Your task to perform on an android device: open app "Firefox Browser" (install if not already installed) and enter user name: "hashed@outlook.com" and password: "congestive" Image 0: 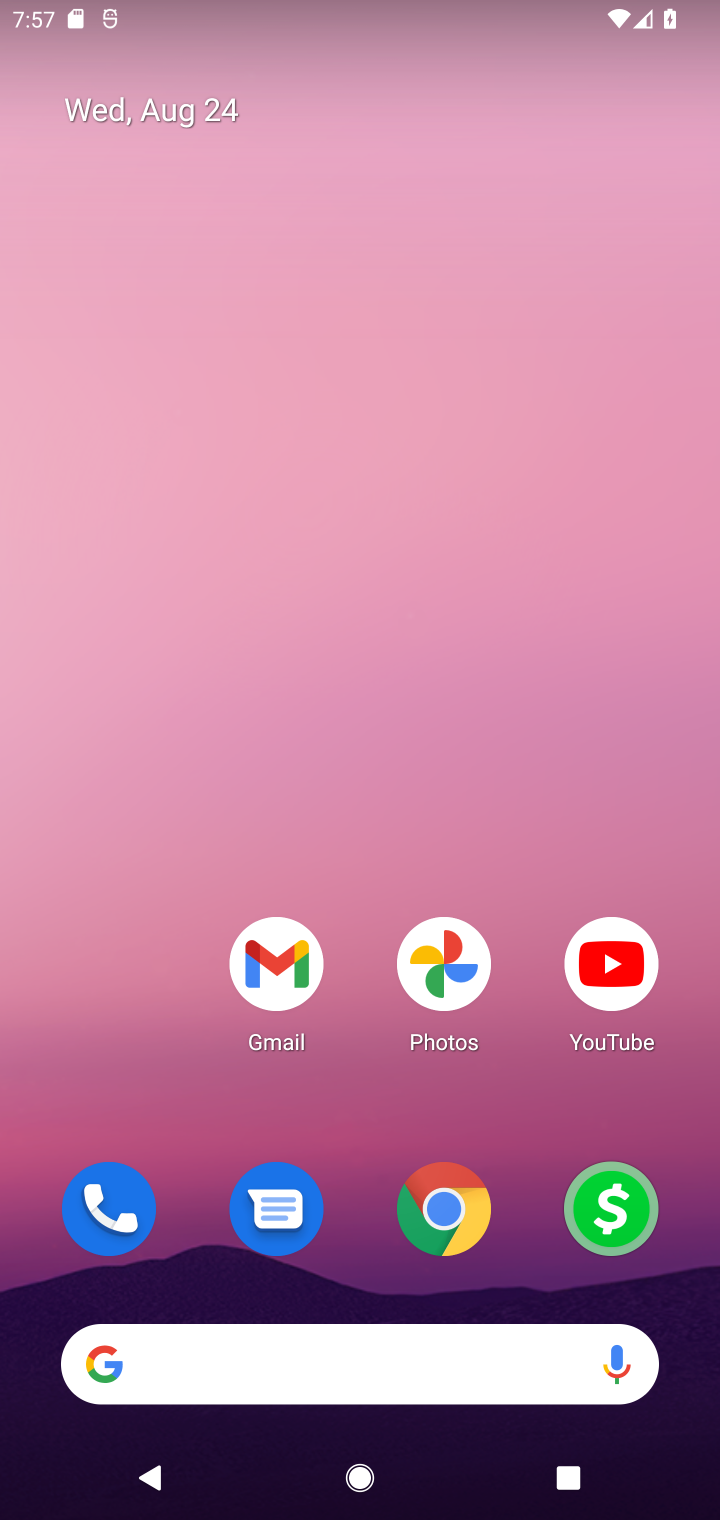
Step 0: drag from (220, 1332) to (577, 220)
Your task to perform on an android device: open app "Firefox Browser" (install if not already installed) and enter user name: "hashed@outlook.com" and password: "congestive" Image 1: 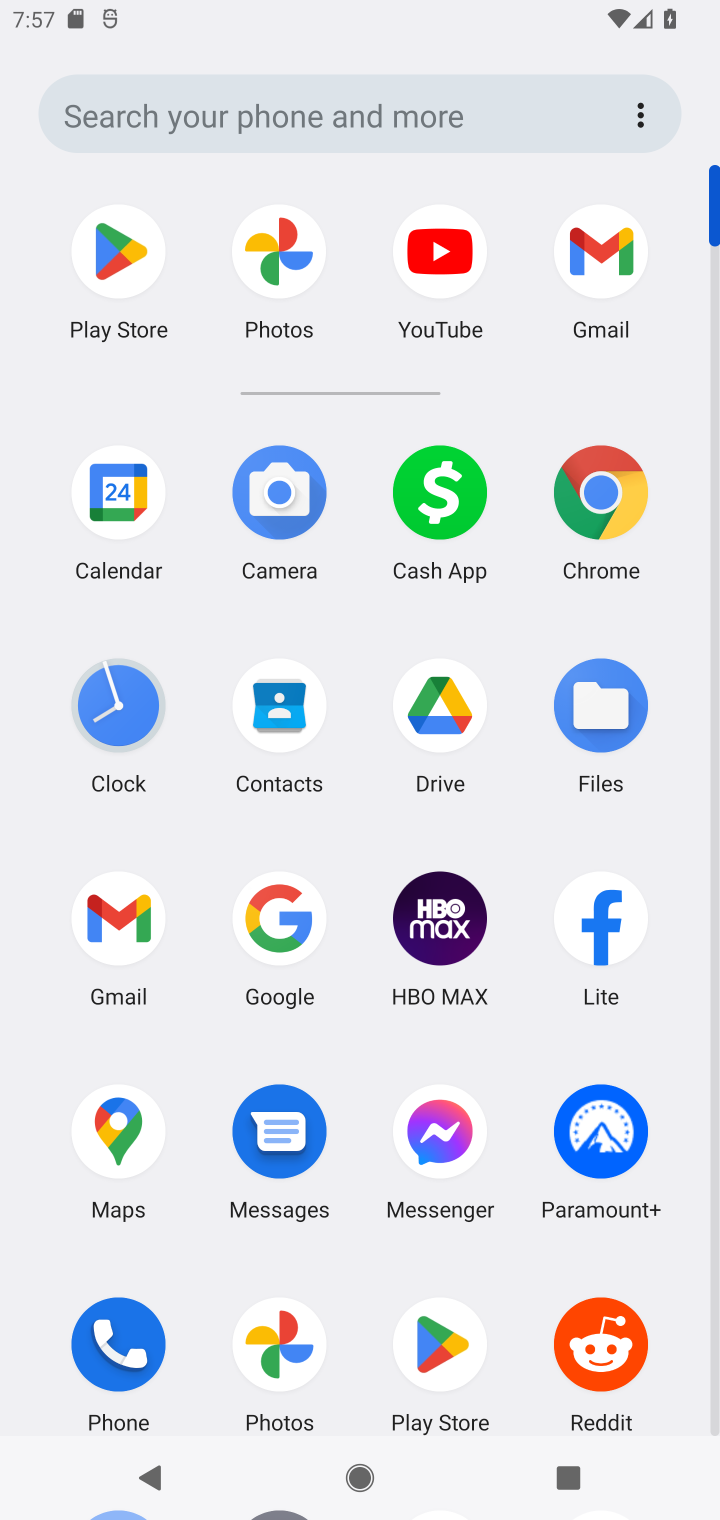
Step 1: click (103, 261)
Your task to perform on an android device: open app "Firefox Browser" (install if not already installed) and enter user name: "hashed@outlook.com" and password: "congestive" Image 2: 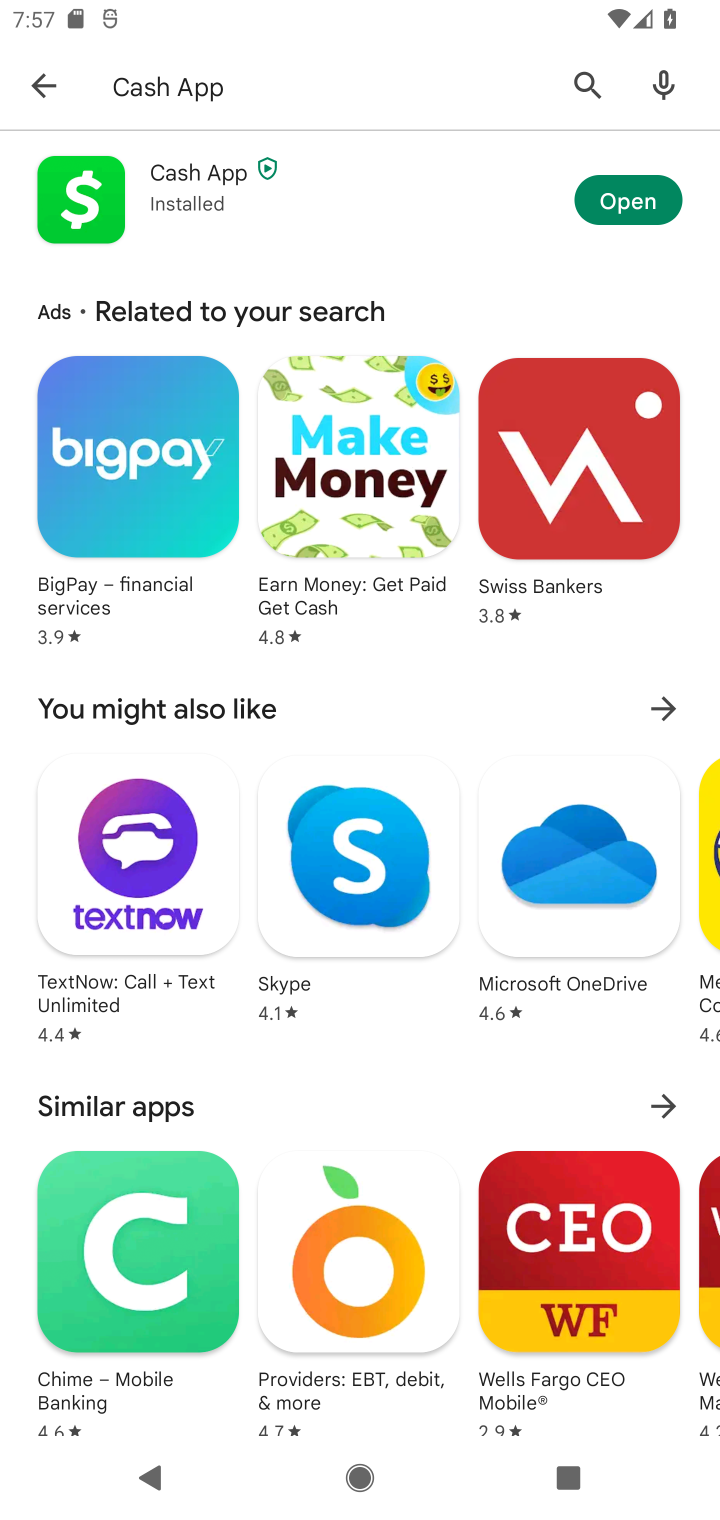
Step 2: press back button
Your task to perform on an android device: open app "Firefox Browser" (install if not already installed) and enter user name: "hashed@outlook.com" and password: "congestive" Image 3: 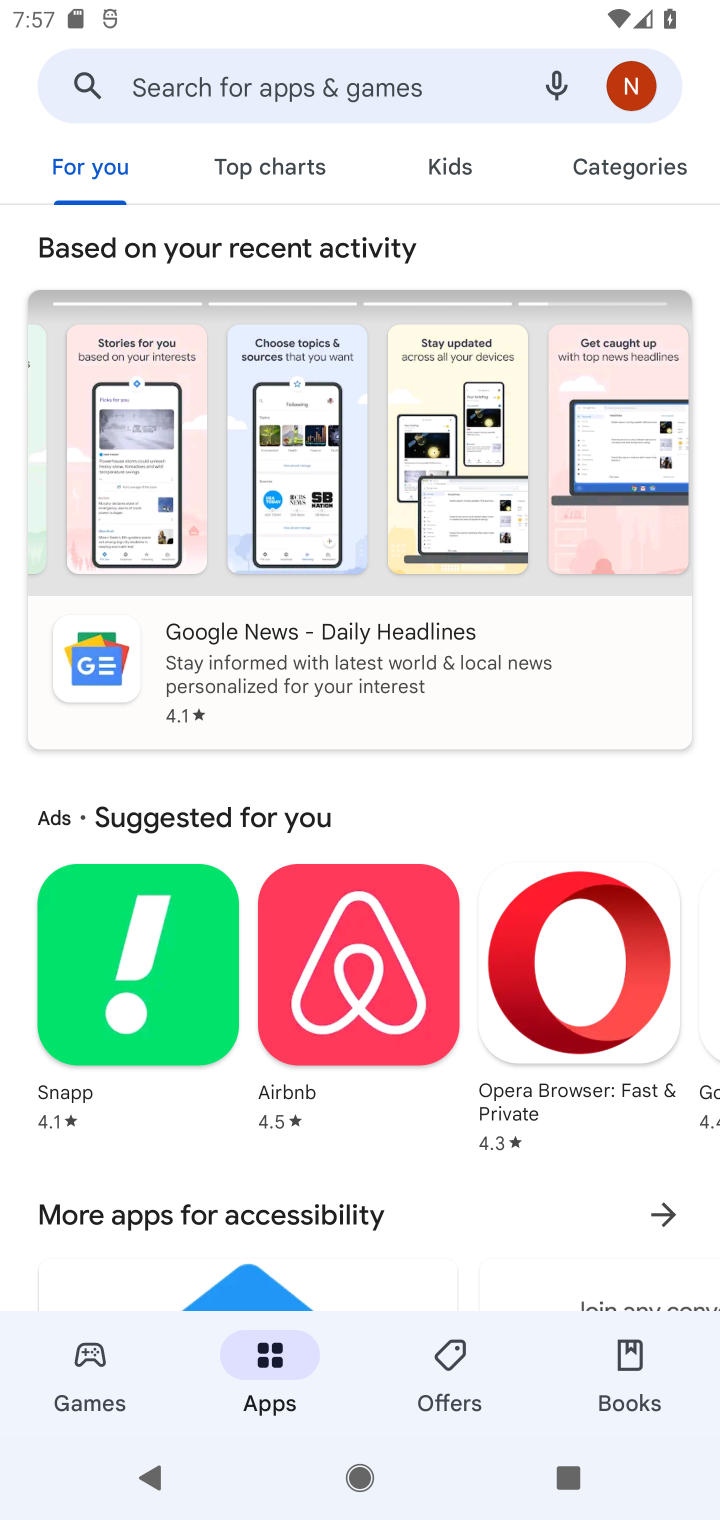
Step 3: click (275, 89)
Your task to perform on an android device: open app "Firefox Browser" (install if not already installed) and enter user name: "hashed@outlook.com" and password: "congestive" Image 4: 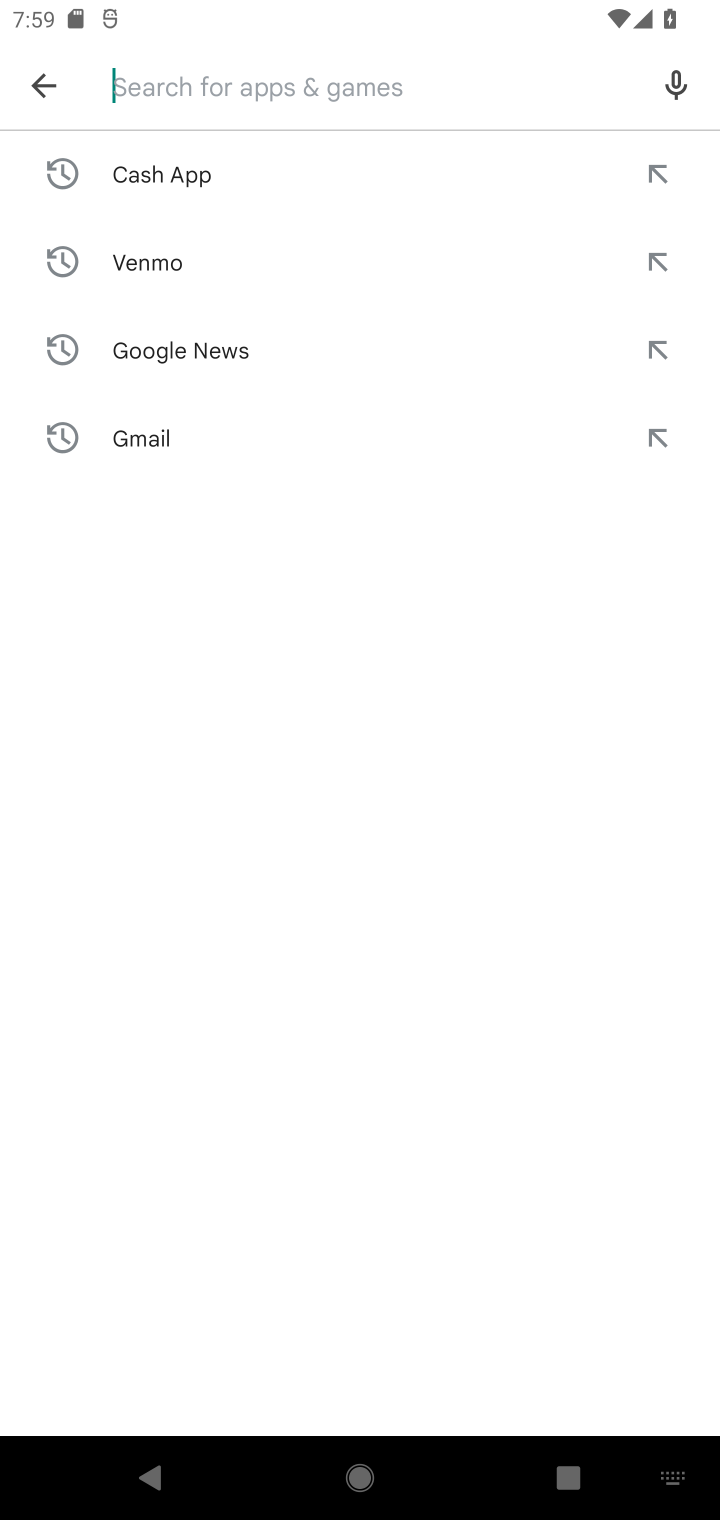
Step 4: type "Firefox Browser"
Your task to perform on an android device: open app "Firefox Browser" (install if not already installed) and enter user name: "hashed@outlook.com" and password: "congestive" Image 5: 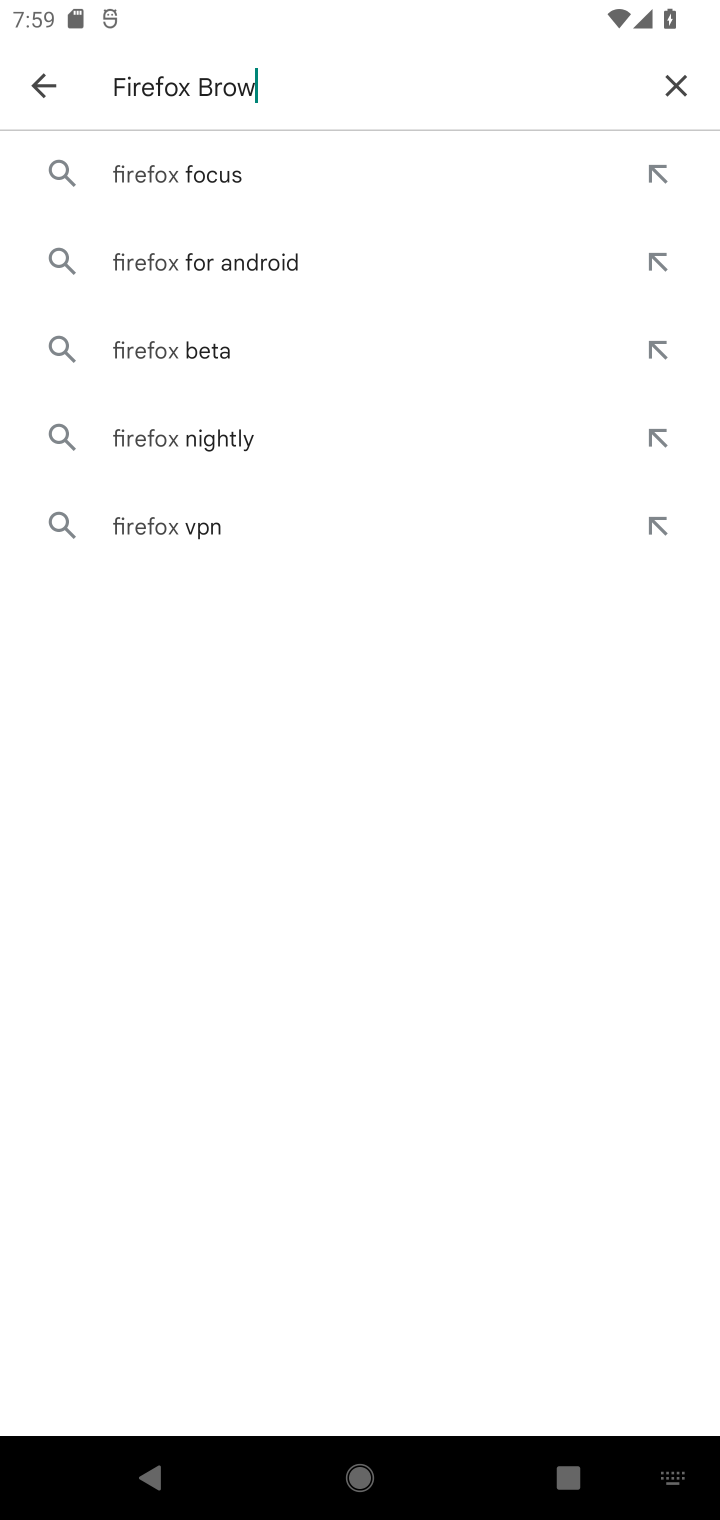
Step 5: press home button
Your task to perform on an android device: open app "Firefox Browser" (install if not already installed) and enter user name: "hashed@outlook.com" and password: "congestive" Image 6: 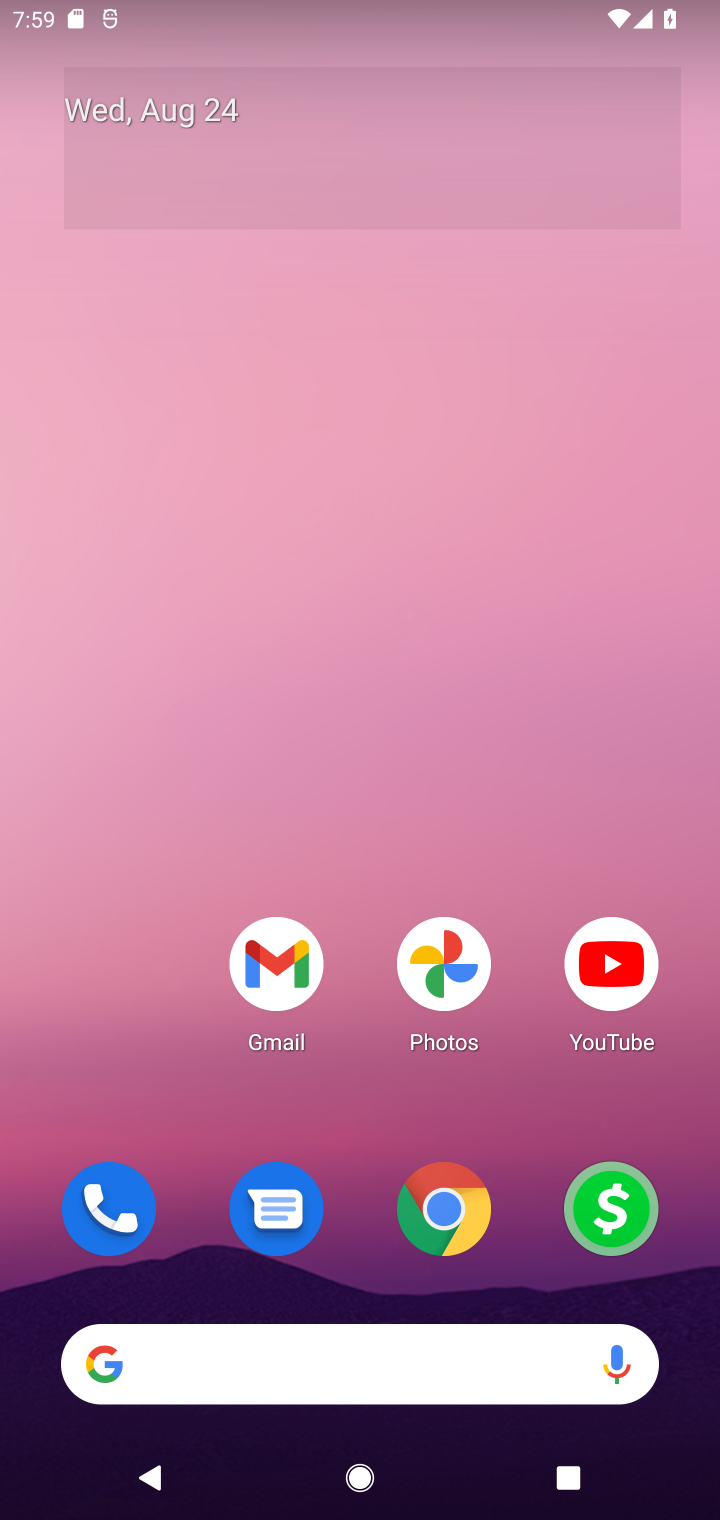
Step 6: drag from (275, 1283) to (362, 88)
Your task to perform on an android device: open app "Firefox Browser" (install if not already installed) and enter user name: "hashed@outlook.com" and password: "congestive" Image 7: 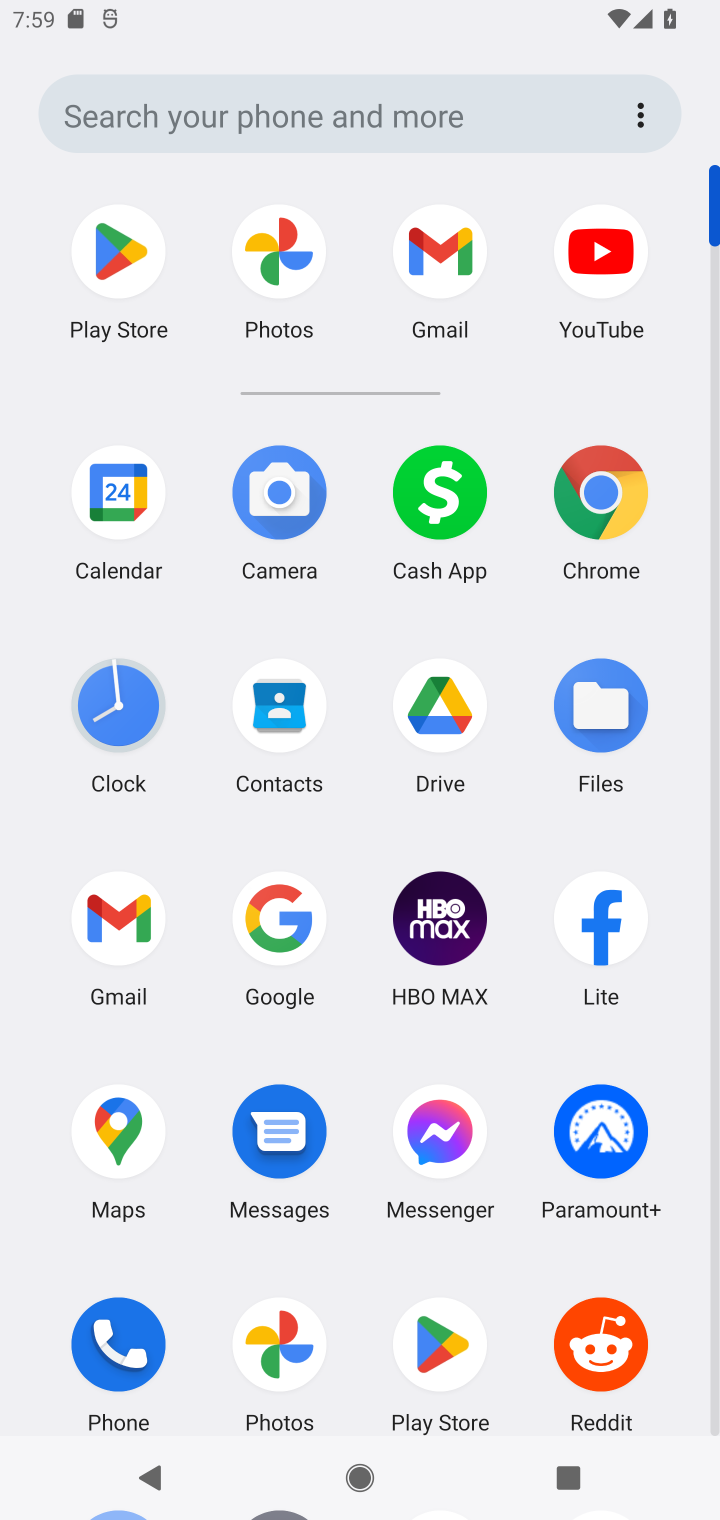
Step 7: click (98, 250)
Your task to perform on an android device: open app "Firefox Browser" (install if not already installed) and enter user name: "hashed@outlook.com" and password: "congestive" Image 8: 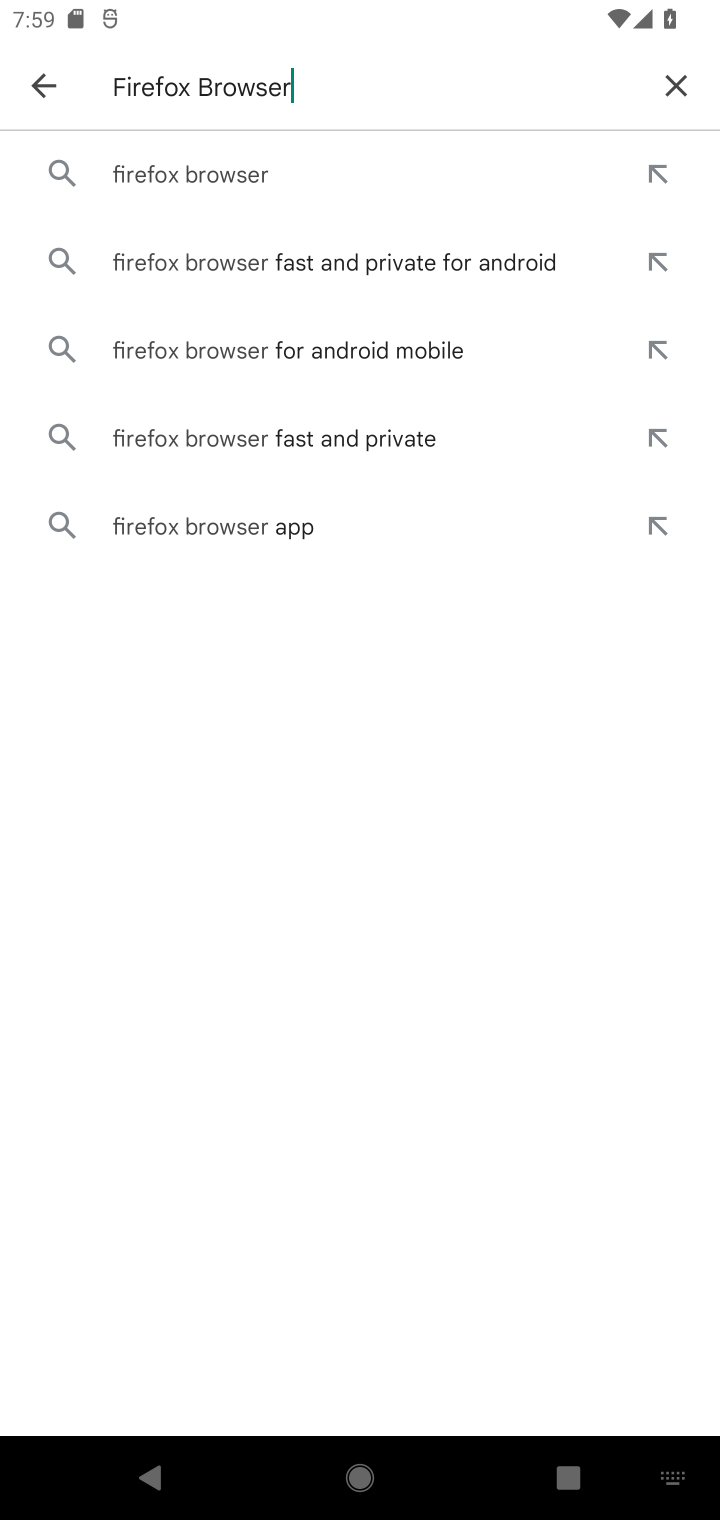
Step 8: click (165, 187)
Your task to perform on an android device: open app "Firefox Browser" (install if not already installed) and enter user name: "hashed@outlook.com" and password: "congestive" Image 9: 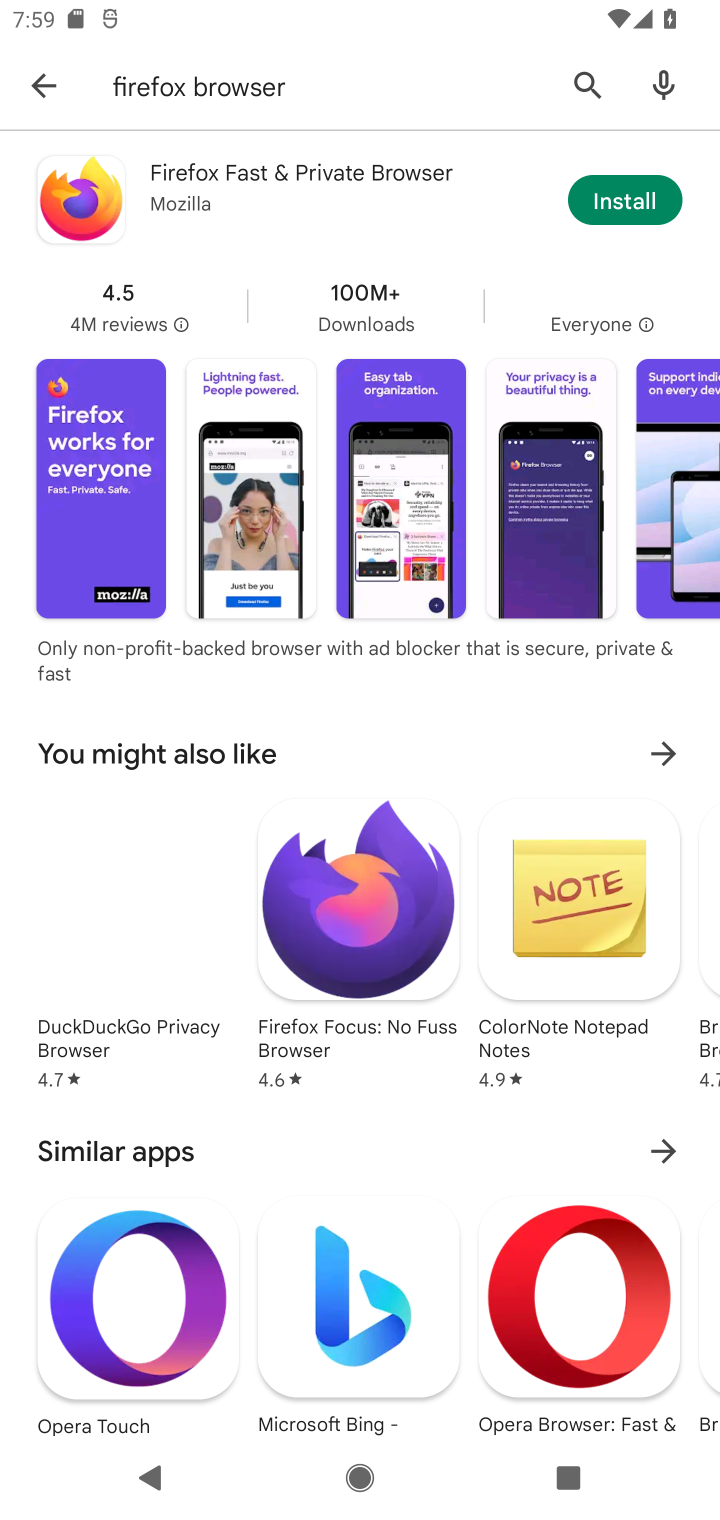
Step 9: click (639, 185)
Your task to perform on an android device: open app "Firefox Browser" (install if not already installed) and enter user name: "hashed@outlook.com" and password: "congestive" Image 10: 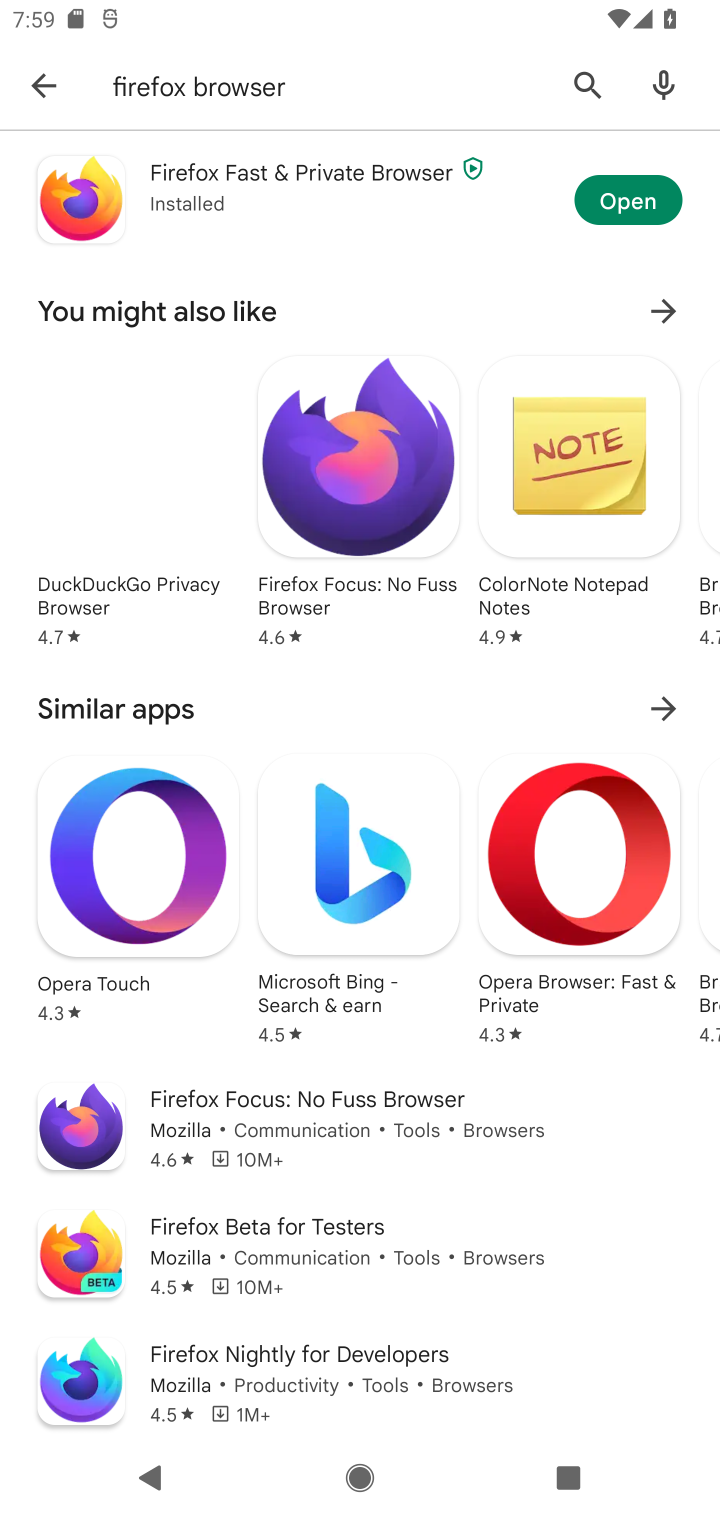
Step 10: click (637, 202)
Your task to perform on an android device: open app "Firefox Browser" (install if not already installed) and enter user name: "hashed@outlook.com" and password: "congestive" Image 11: 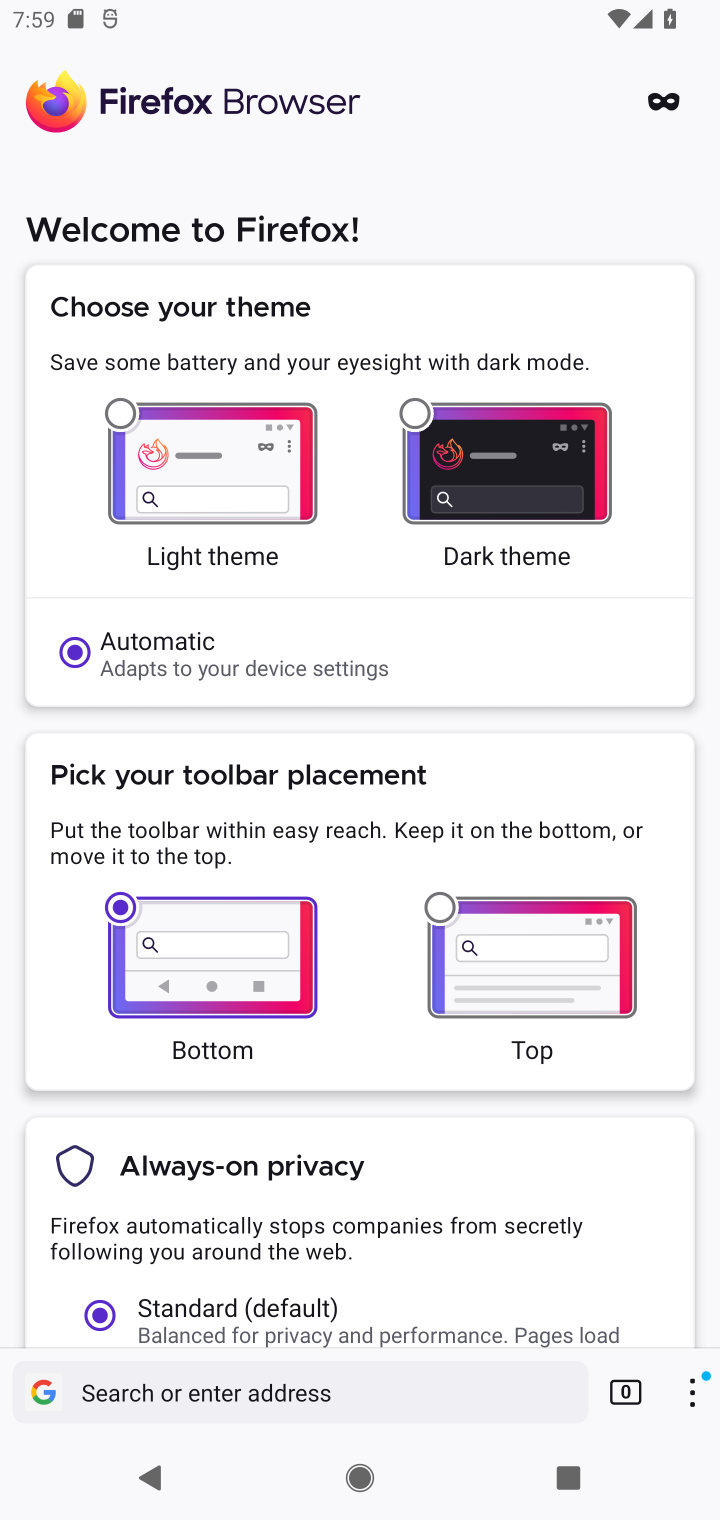
Step 11: press home button
Your task to perform on an android device: open app "Firefox Browser" (install if not already installed) and enter user name: "hashed@outlook.com" and password: "congestive" Image 12: 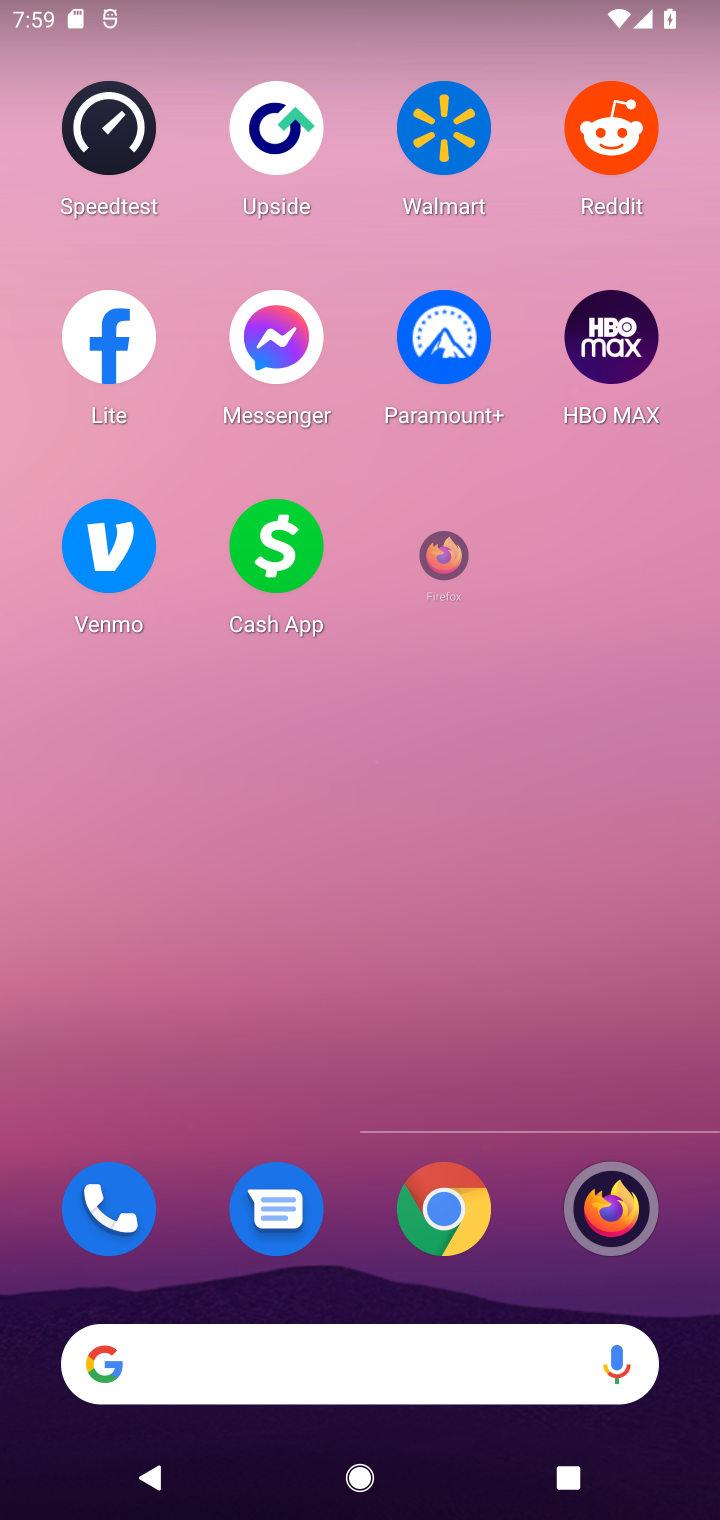
Step 12: drag from (260, 1162) to (525, 127)
Your task to perform on an android device: open app "Firefox Browser" (install if not already installed) and enter user name: "hashed@outlook.com" and password: "congestive" Image 13: 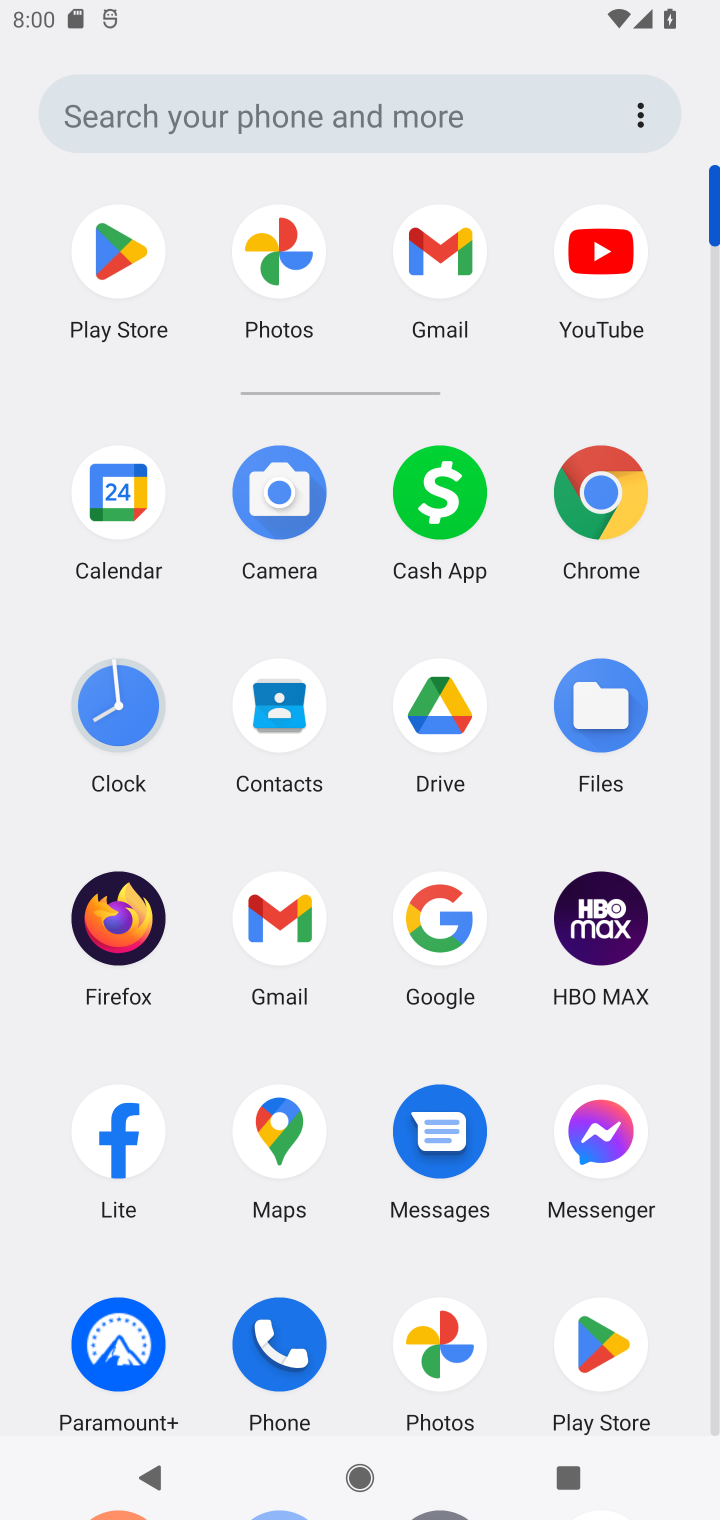
Step 13: click (82, 291)
Your task to perform on an android device: open app "Firefox Browser" (install if not already installed) and enter user name: "hashed@outlook.com" and password: "congestive" Image 14: 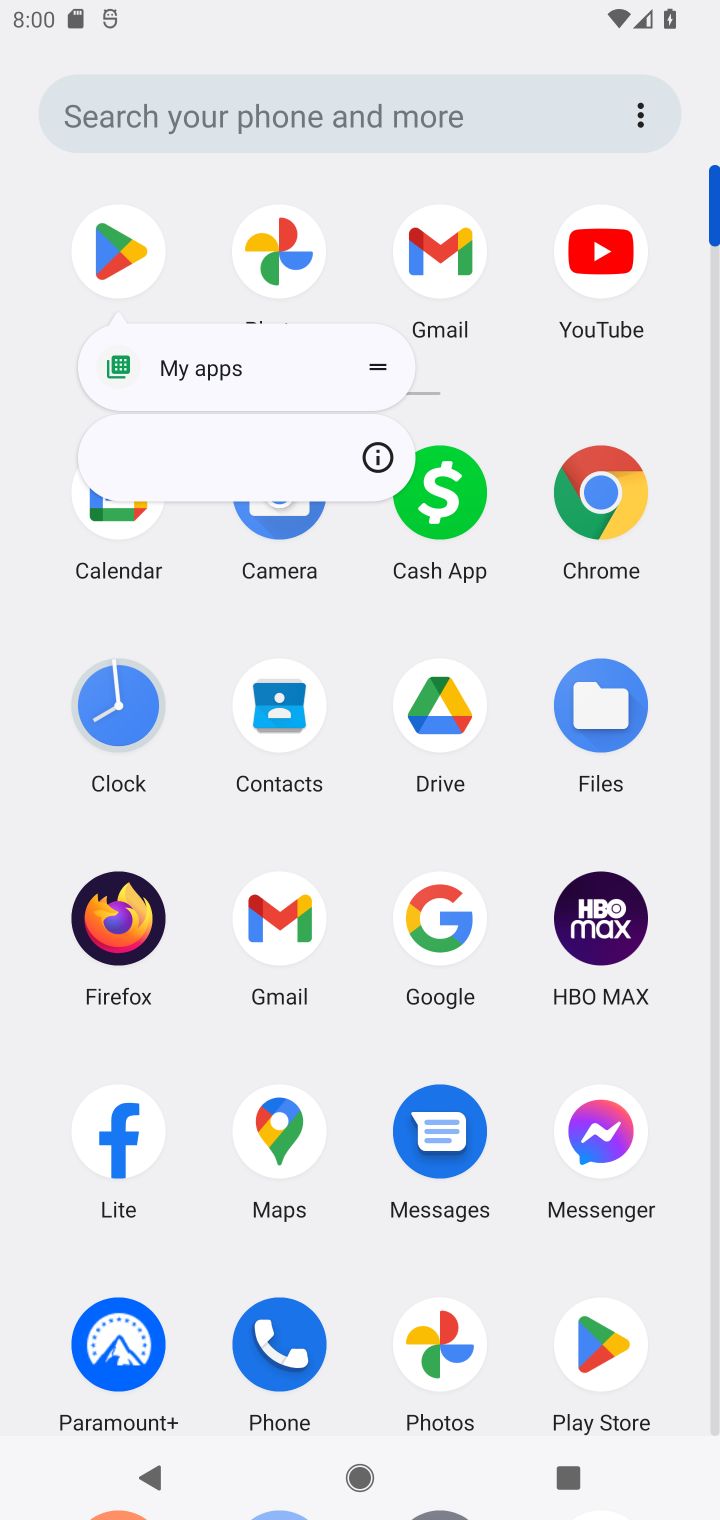
Step 14: click (111, 260)
Your task to perform on an android device: open app "Firefox Browser" (install if not already installed) and enter user name: "hashed@outlook.com" and password: "congestive" Image 15: 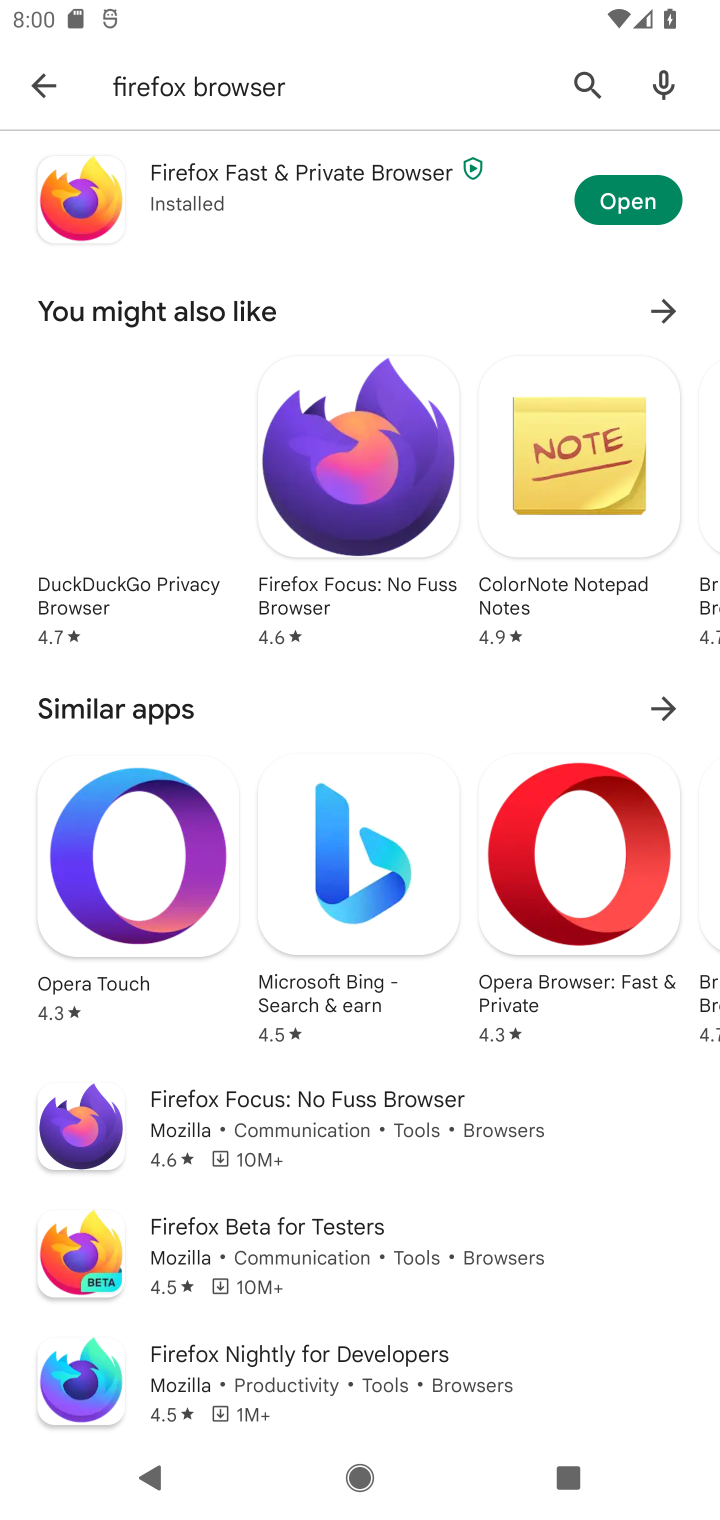
Step 15: task complete